Your task to perform on an android device: Open Youtube and go to the subscriptions tab Image 0: 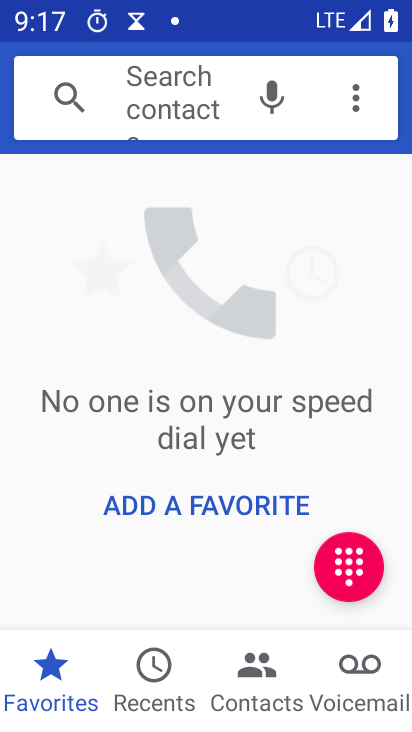
Step 0: press home button
Your task to perform on an android device: Open Youtube and go to the subscriptions tab Image 1: 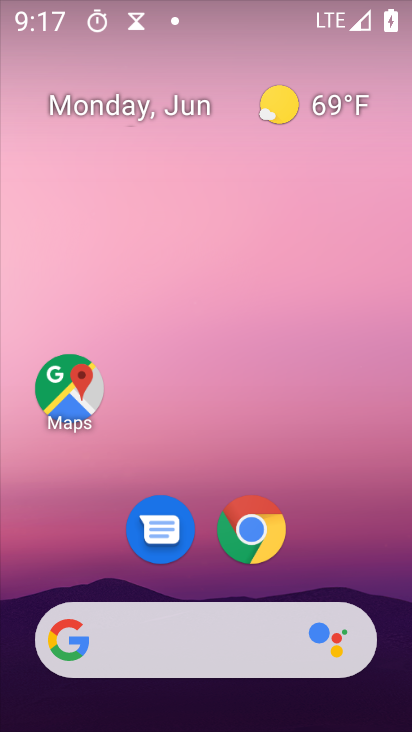
Step 1: drag from (342, 500) to (330, 26)
Your task to perform on an android device: Open Youtube and go to the subscriptions tab Image 2: 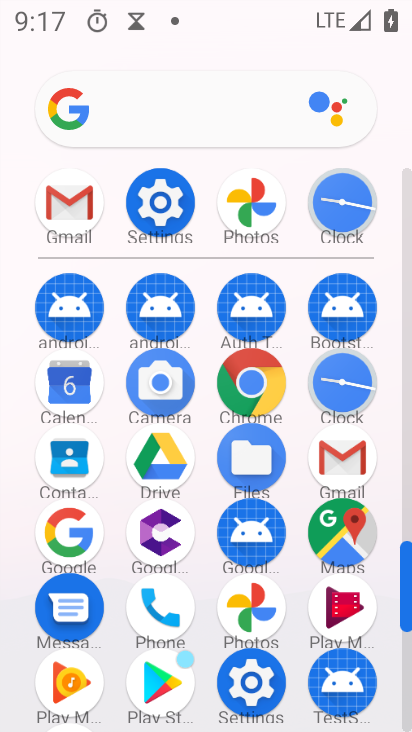
Step 2: click (401, 666)
Your task to perform on an android device: Open Youtube and go to the subscriptions tab Image 3: 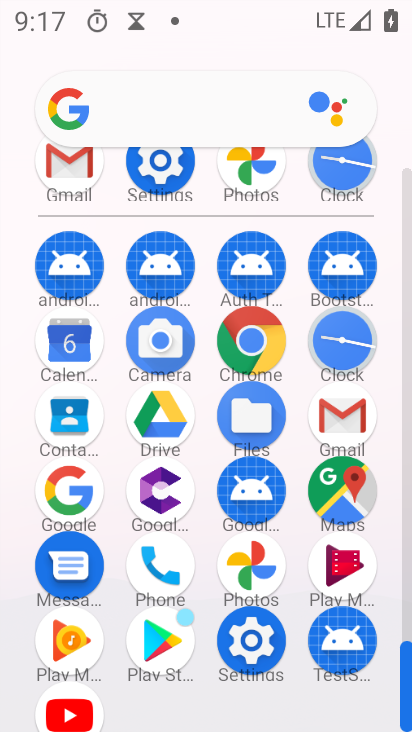
Step 3: drag from (378, 688) to (387, 240)
Your task to perform on an android device: Open Youtube and go to the subscriptions tab Image 4: 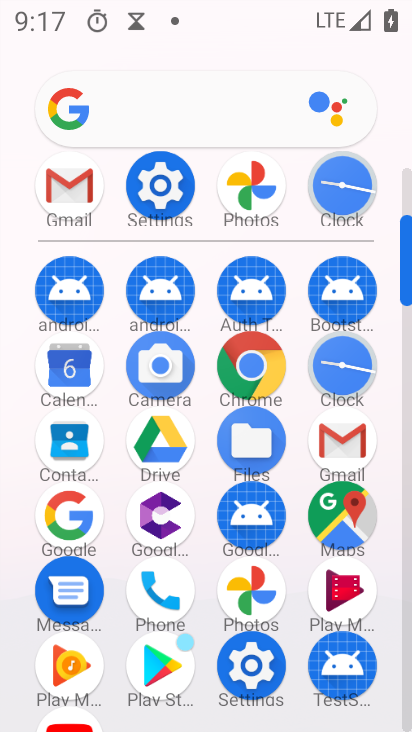
Step 4: click (400, 701)
Your task to perform on an android device: Open Youtube and go to the subscriptions tab Image 5: 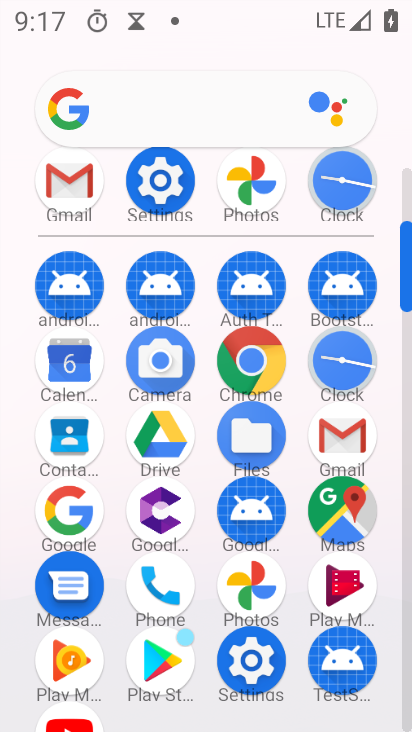
Step 5: click (408, 714)
Your task to perform on an android device: Open Youtube and go to the subscriptions tab Image 6: 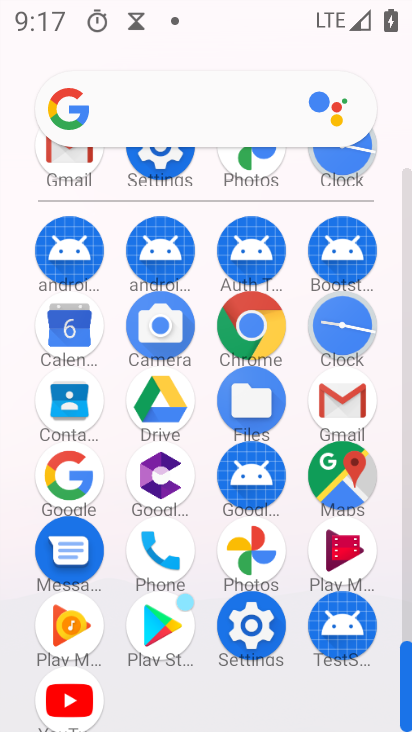
Step 6: click (88, 692)
Your task to perform on an android device: Open Youtube and go to the subscriptions tab Image 7: 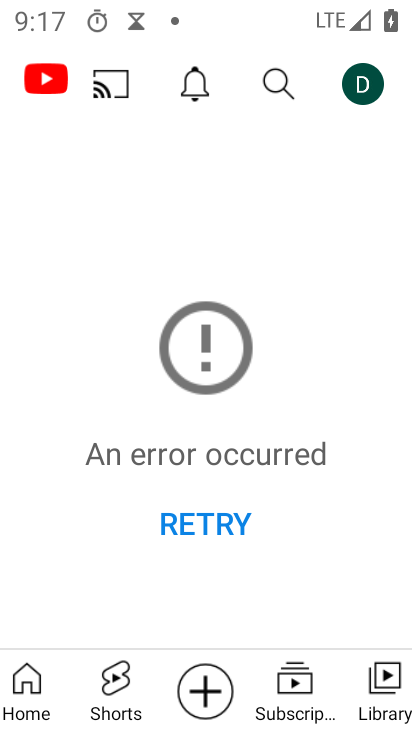
Step 7: click (305, 679)
Your task to perform on an android device: Open Youtube and go to the subscriptions tab Image 8: 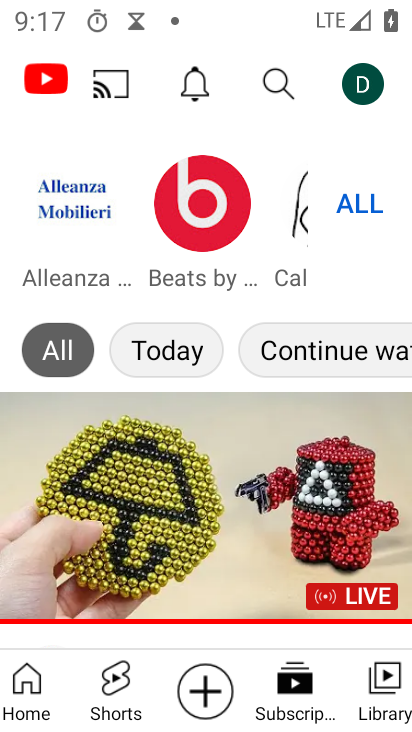
Step 8: task complete